Your task to perform on an android device: choose inbox layout in the gmail app Image 0: 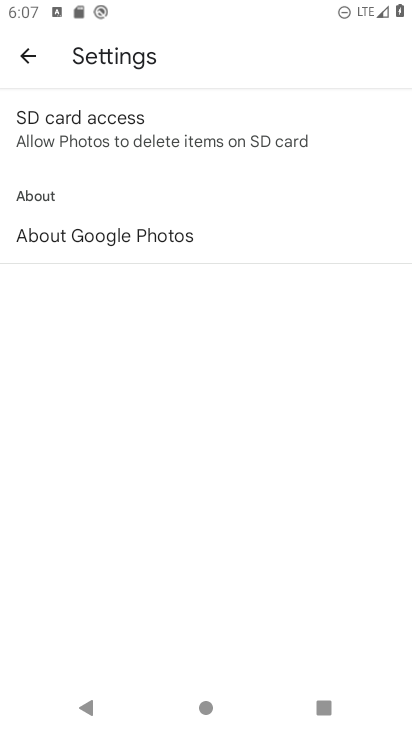
Step 0: press home button
Your task to perform on an android device: choose inbox layout in the gmail app Image 1: 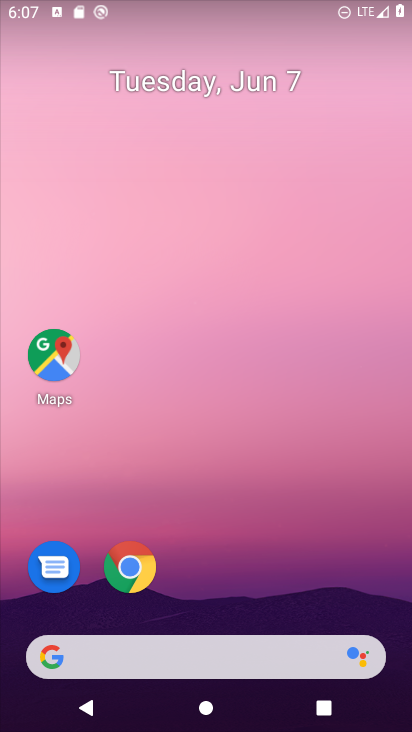
Step 1: drag from (238, 644) to (256, 133)
Your task to perform on an android device: choose inbox layout in the gmail app Image 2: 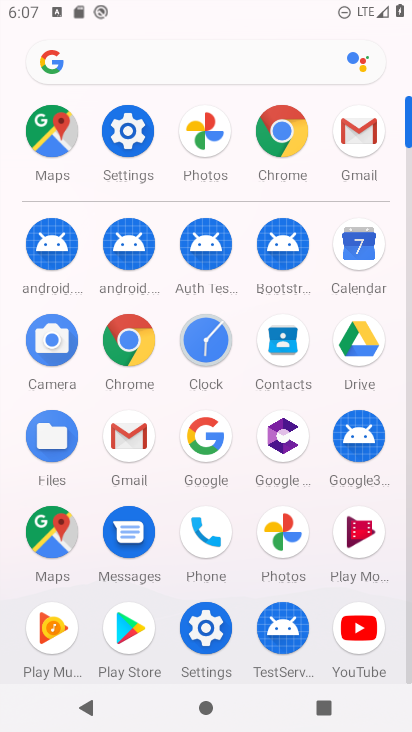
Step 2: click (153, 436)
Your task to perform on an android device: choose inbox layout in the gmail app Image 3: 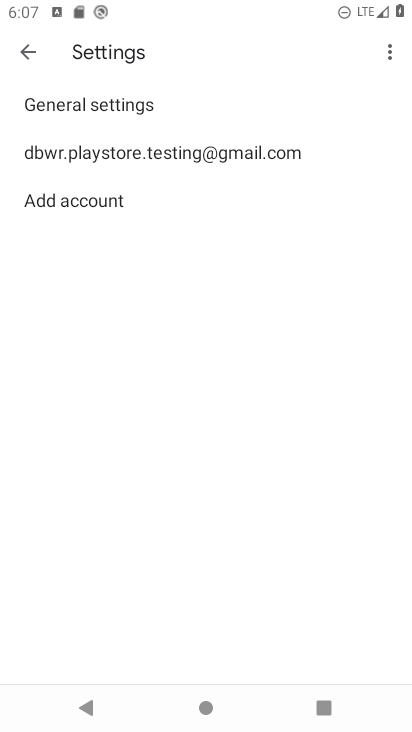
Step 3: click (201, 148)
Your task to perform on an android device: choose inbox layout in the gmail app Image 4: 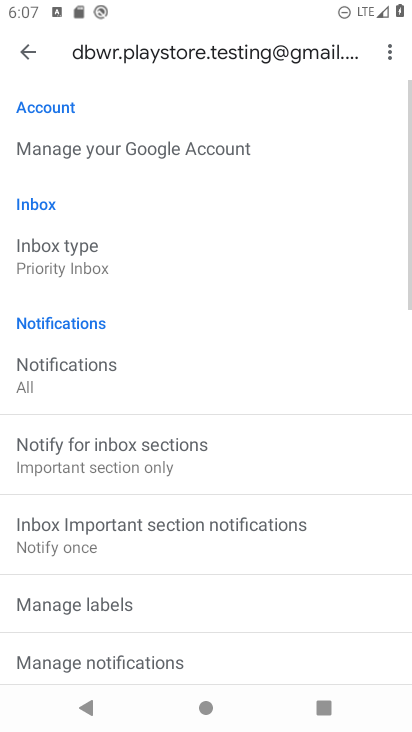
Step 4: click (84, 257)
Your task to perform on an android device: choose inbox layout in the gmail app Image 5: 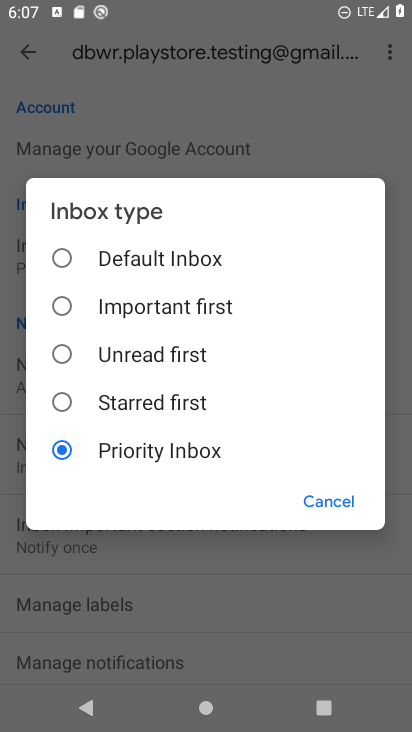
Step 5: click (332, 501)
Your task to perform on an android device: choose inbox layout in the gmail app Image 6: 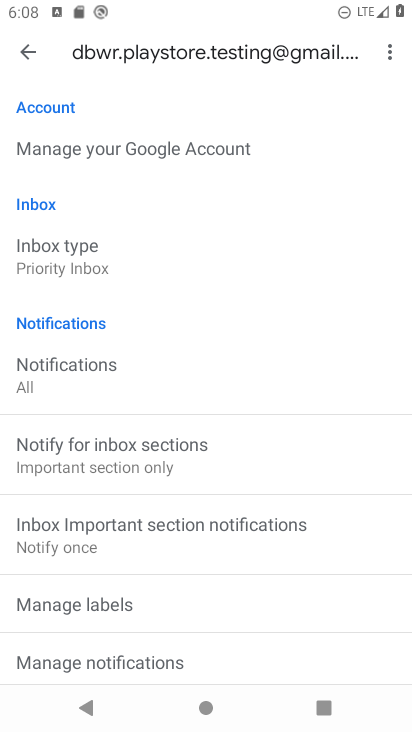
Step 6: click (125, 261)
Your task to perform on an android device: choose inbox layout in the gmail app Image 7: 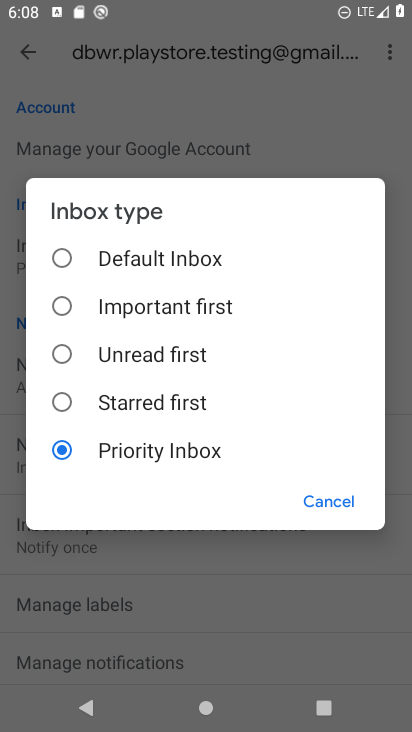
Step 7: click (196, 254)
Your task to perform on an android device: choose inbox layout in the gmail app Image 8: 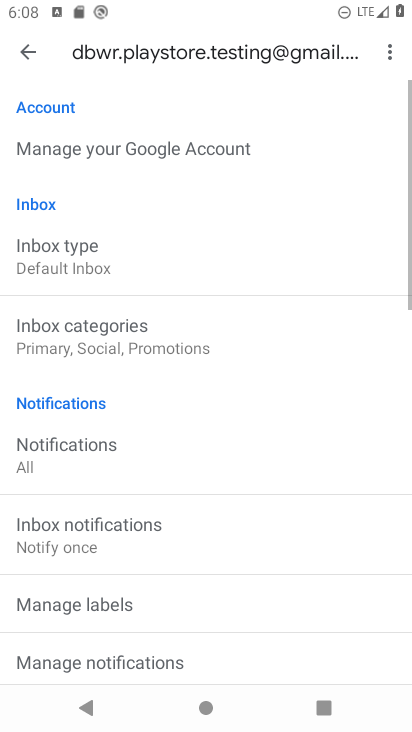
Step 8: task complete